Your task to perform on an android device: Open Amazon Image 0: 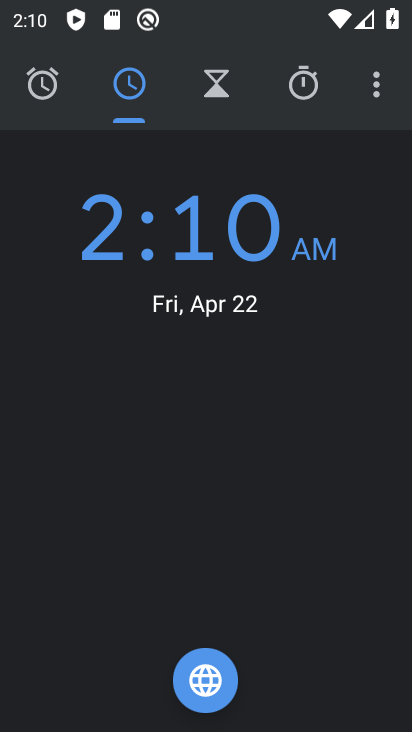
Step 0: press back button
Your task to perform on an android device: Open Amazon Image 1: 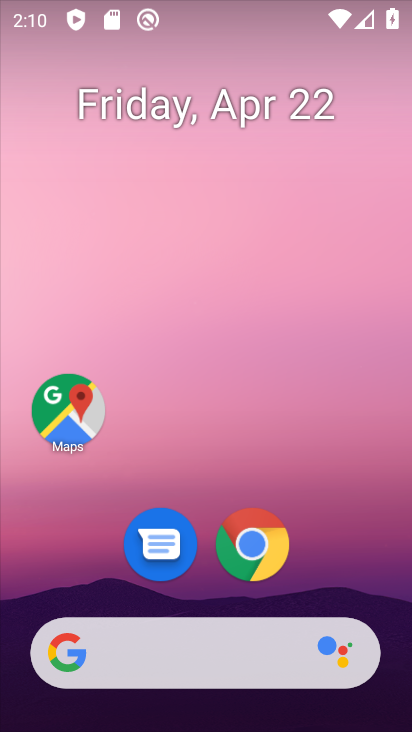
Step 1: click (254, 553)
Your task to perform on an android device: Open Amazon Image 2: 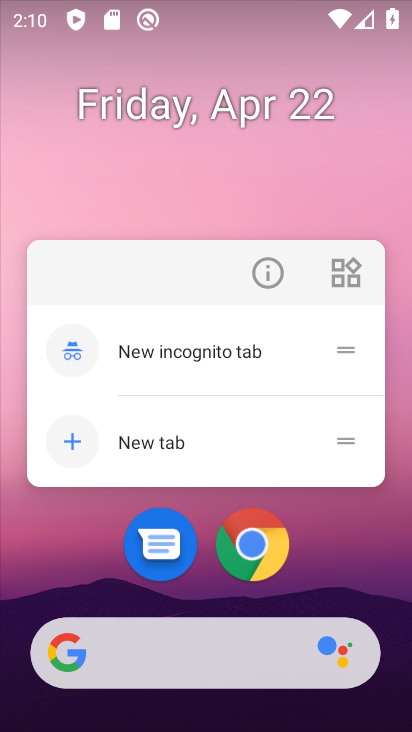
Step 2: click (255, 548)
Your task to perform on an android device: Open Amazon Image 3: 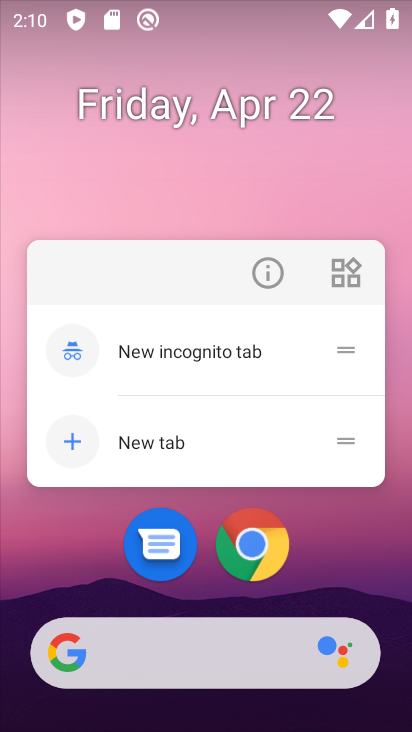
Step 3: click (255, 548)
Your task to perform on an android device: Open Amazon Image 4: 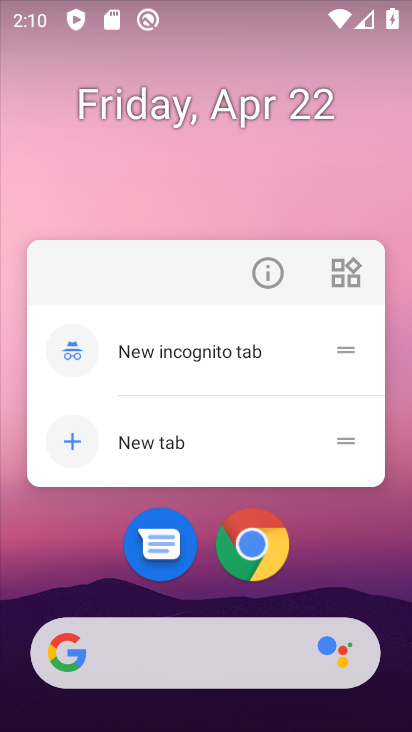
Step 4: click (239, 547)
Your task to perform on an android device: Open Amazon Image 5: 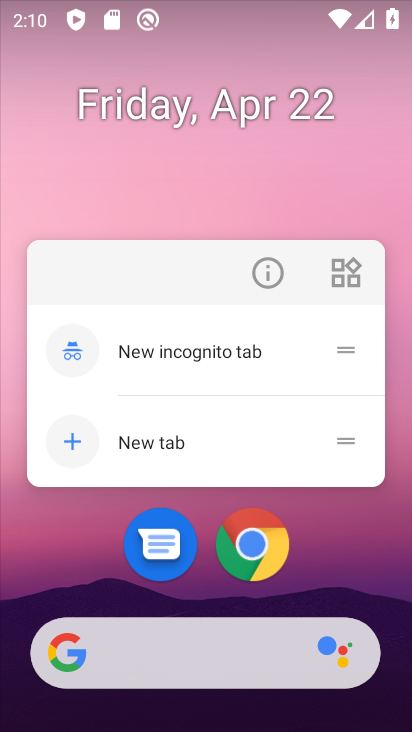
Step 5: click (242, 567)
Your task to perform on an android device: Open Amazon Image 6: 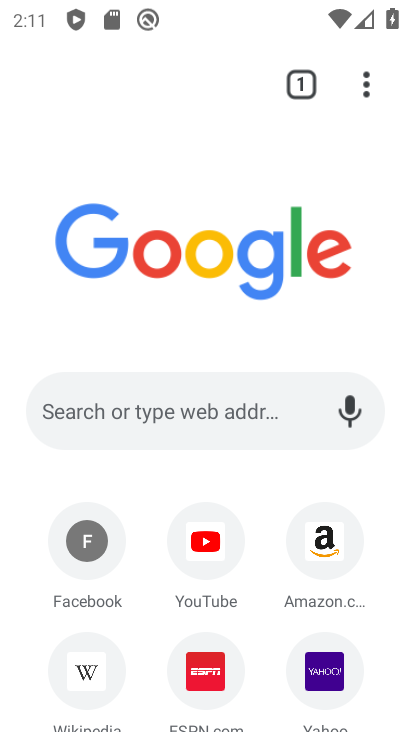
Step 6: click (318, 563)
Your task to perform on an android device: Open Amazon Image 7: 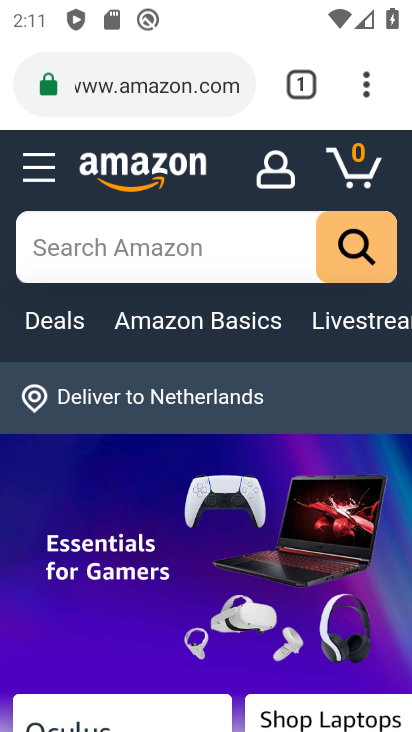
Step 7: task complete